Your task to perform on an android device: Open the stopwatch Image 0: 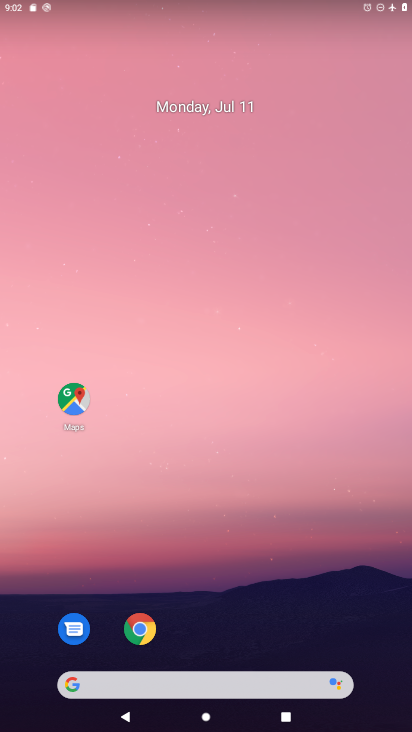
Step 0: drag from (301, 613) to (281, 34)
Your task to perform on an android device: Open the stopwatch Image 1: 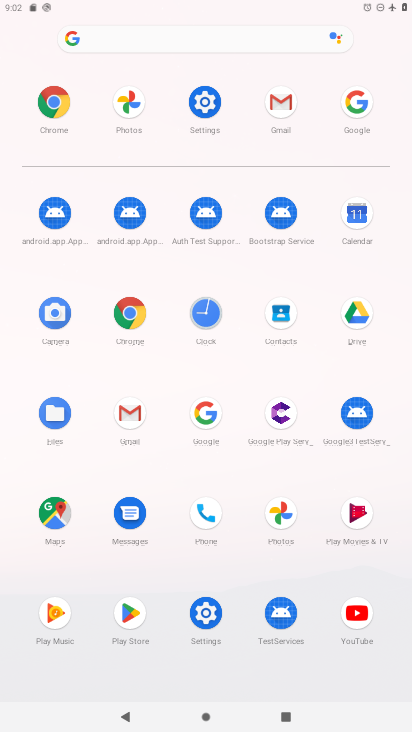
Step 1: click (206, 307)
Your task to perform on an android device: Open the stopwatch Image 2: 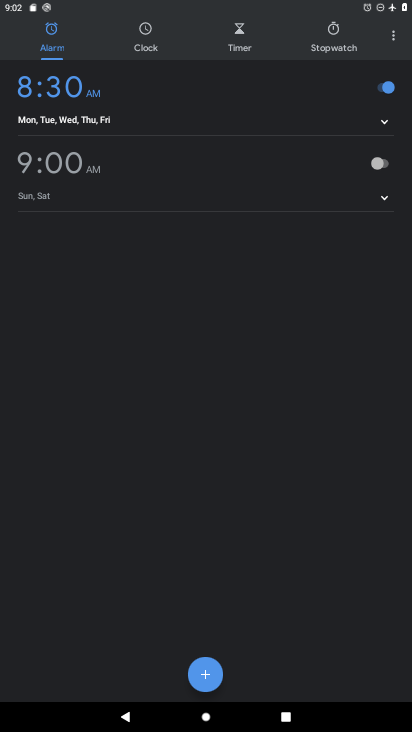
Step 2: click (336, 42)
Your task to perform on an android device: Open the stopwatch Image 3: 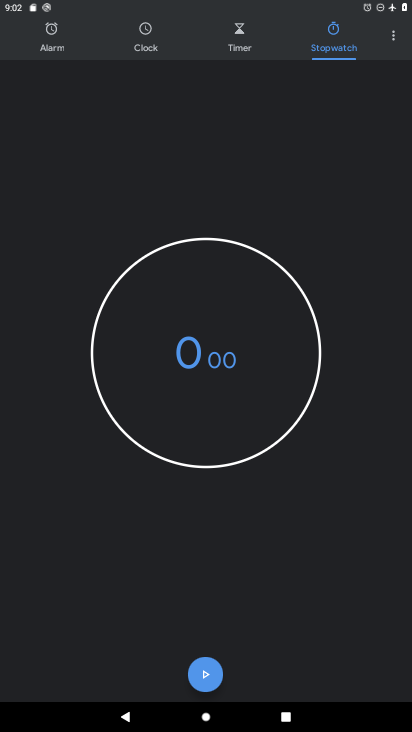
Step 3: click (203, 672)
Your task to perform on an android device: Open the stopwatch Image 4: 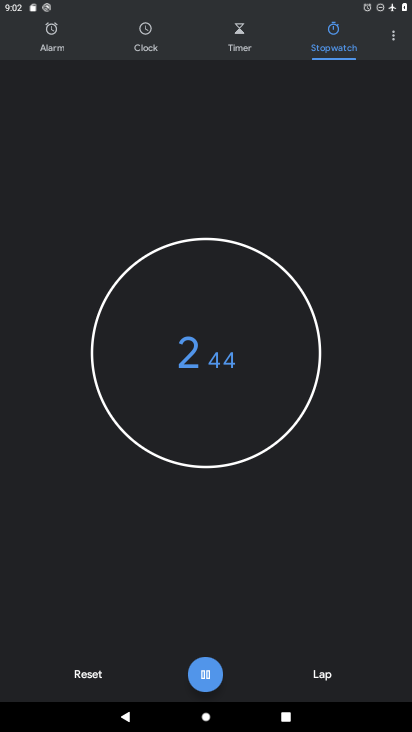
Step 4: task complete